Your task to perform on an android device: see sites visited before in the chrome app Image 0: 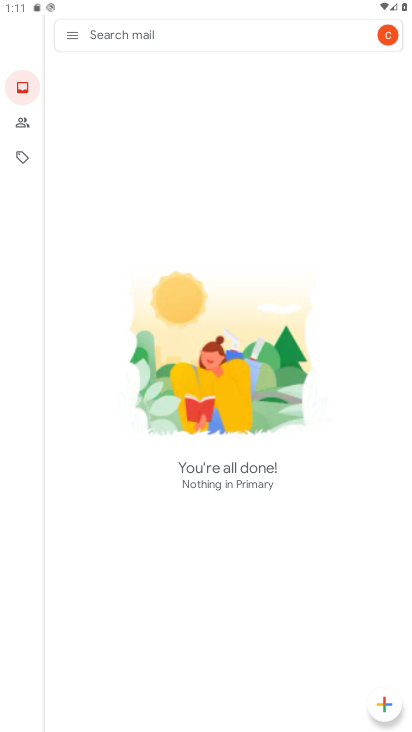
Step 0: press back button
Your task to perform on an android device: see sites visited before in the chrome app Image 1: 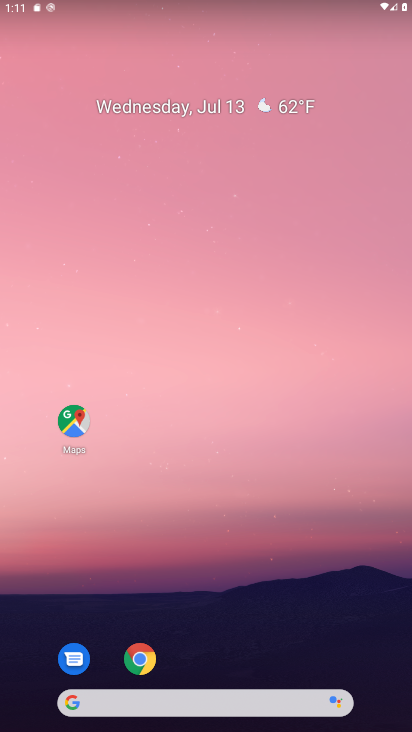
Step 1: drag from (273, 693) to (192, 166)
Your task to perform on an android device: see sites visited before in the chrome app Image 2: 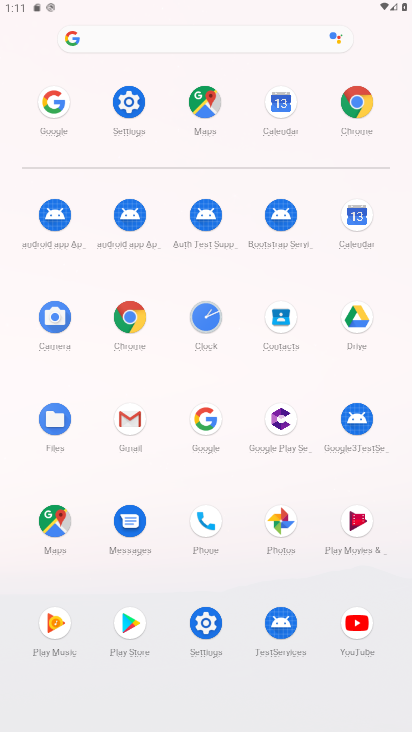
Step 2: click (350, 102)
Your task to perform on an android device: see sites visited before in the chrome app Image 3: 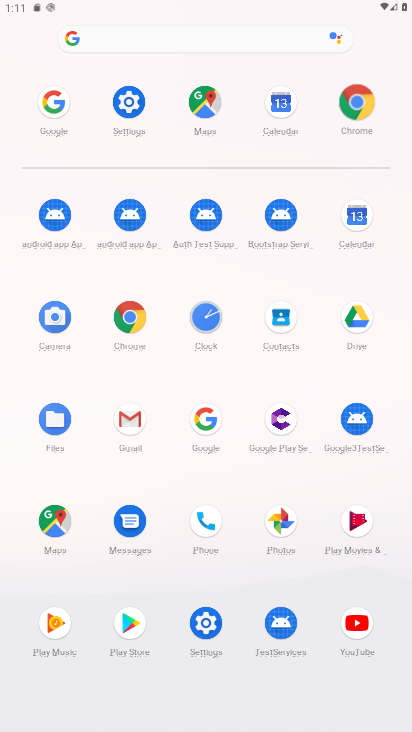
Step 3: click (353, 94)
Your task to perform on an android device: see sites visited before in the chrome app Image 4: 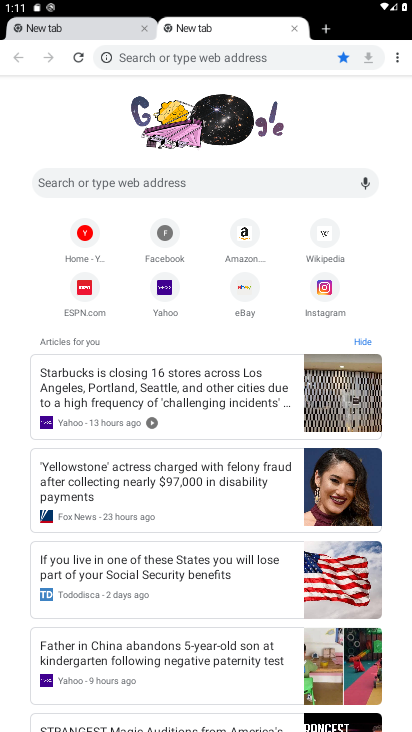
Step 4: drag from (403, 59) to (282, 189)
Your task to perform on an android device: see sites visited before in the chrome app Image 5: 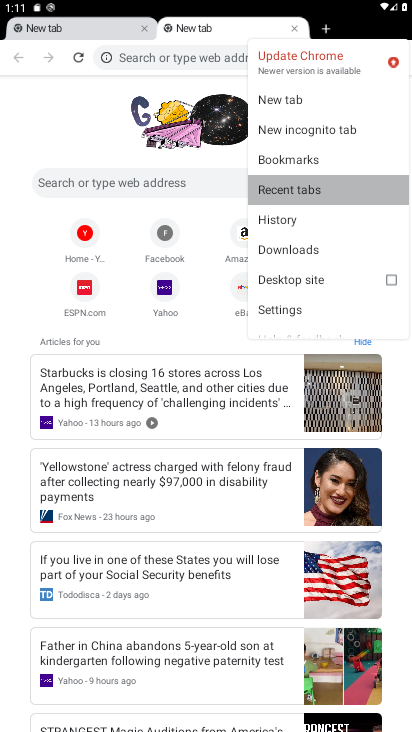
Step 5: click (287, 189)
Your task to perform on an android device: see sites visited before in the chrome app Image 6: 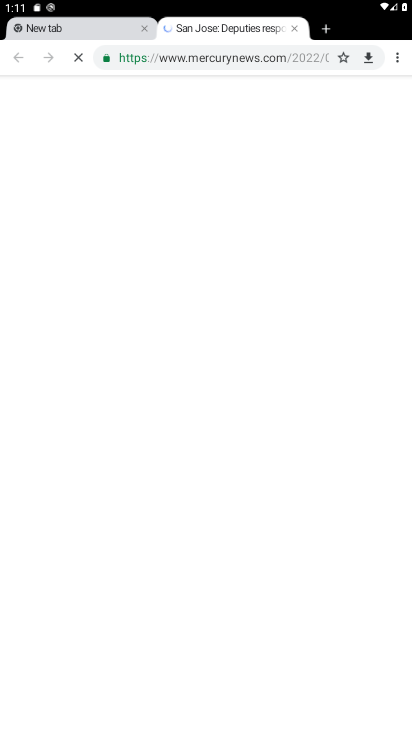
Step 6: task complete